Your task to perform on an android device: Clear the cart on newegg. Search for razer thresher on newegg, select the first entry, add it to the cart, then select checkout. Image 0: 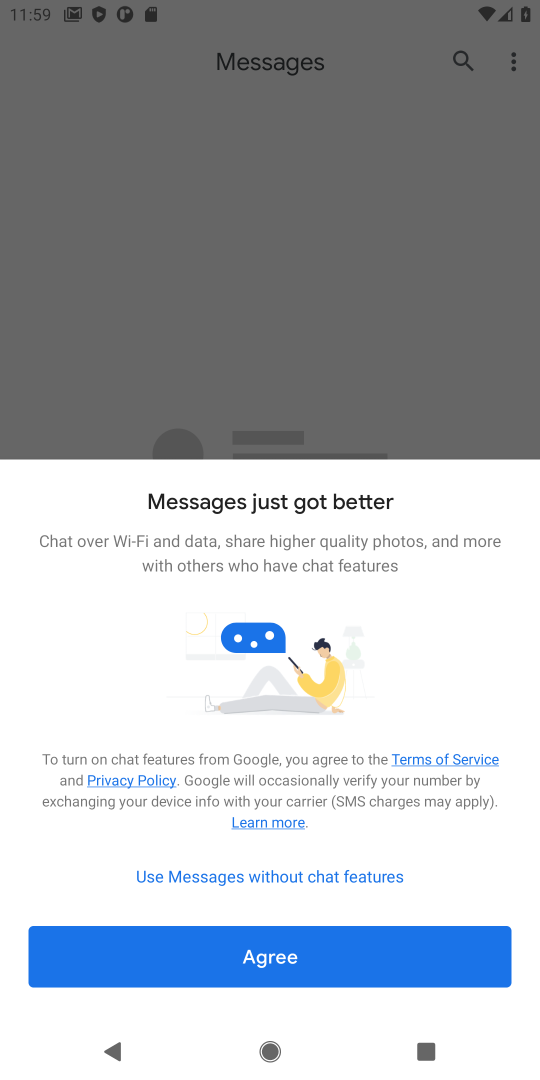
Step 0: press home button
Your task to perform on an android device: Clear the cart on newegg. Search for razer thresher on newegg, select the first entry, add it to the cart, then select checkout. Image 1: 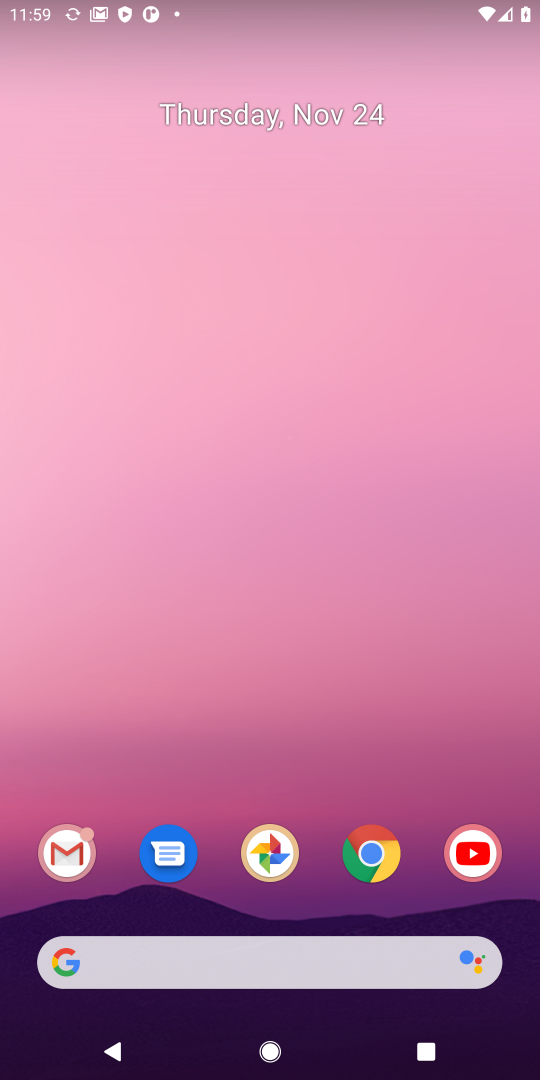
Step 1: click (131, 947)
Your task to perform on an android device: Clear the cart on newegg. Search for razer thresher on newegg, select the first entry, add it to the cart, then select checkout. Image 2: 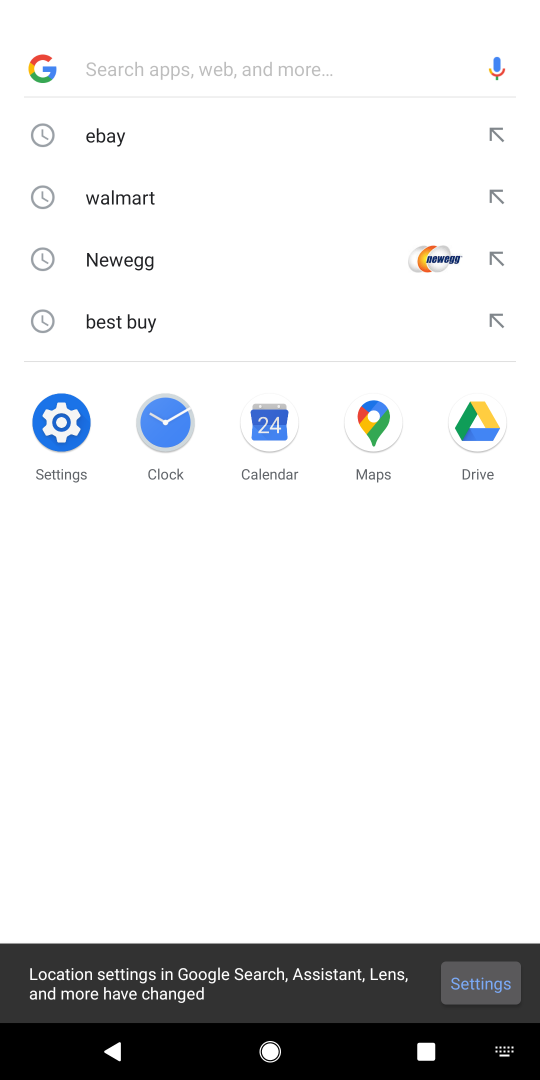
Step 2: type "newegg"
Your task to perform on an android device: Clear the cart on newegg. Search for razer thresher on newegg, select the first entry, add it to the cart, then select checkout. Image 3: 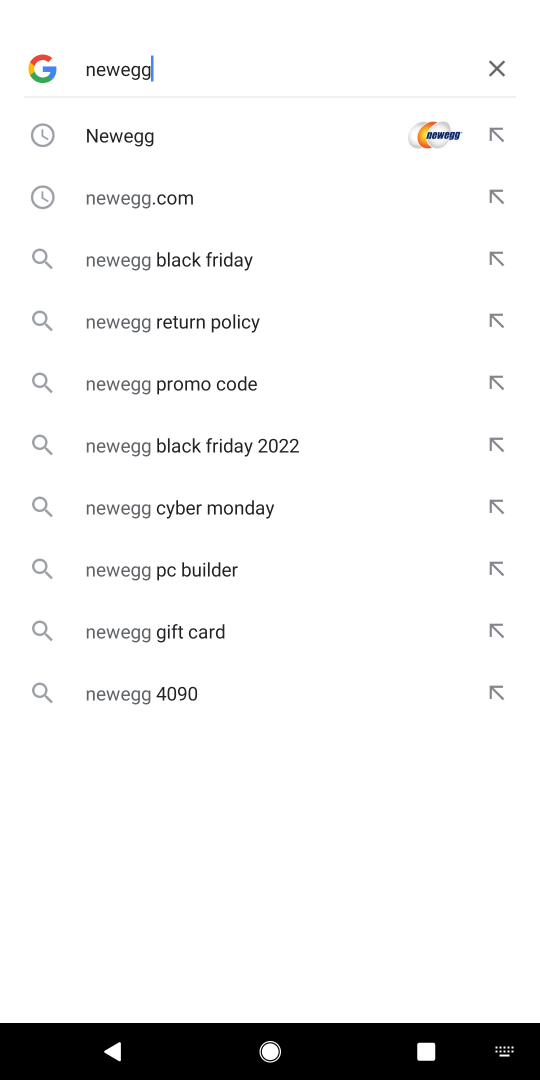
Step 3: click (279, 134)
Your task to perform on an android device: Clear the cart on newegg. Search for razer thresher on newegg, select the first entry, add it to the cart, then select checkout. Image 4: 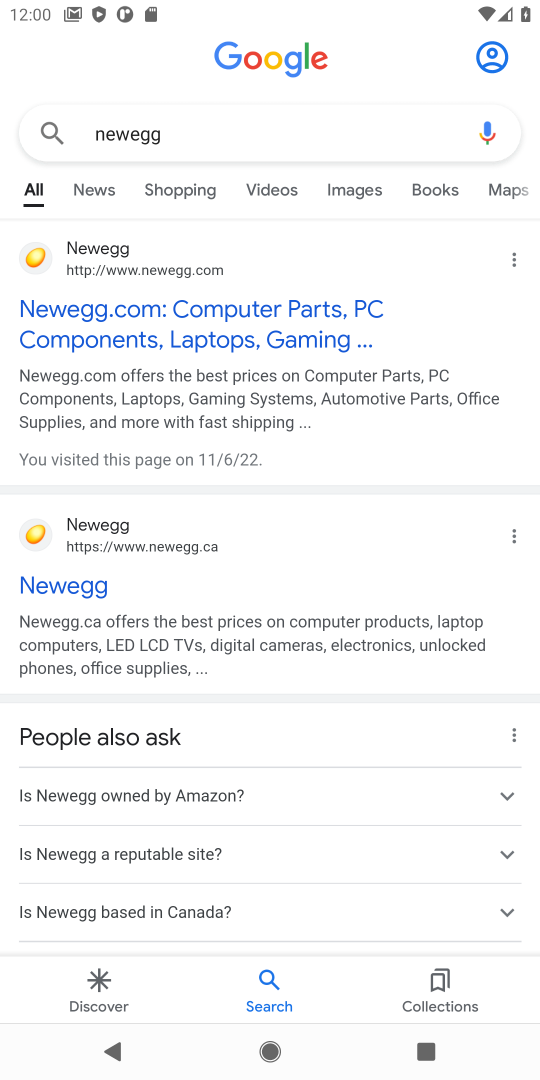
Step 4: click (283, 304)
Your task to perform on an android device: Clear the cart on newegg. Search for razer thresher on newegg, select the first entry, add it to the cart, then select checkout. Image 5: 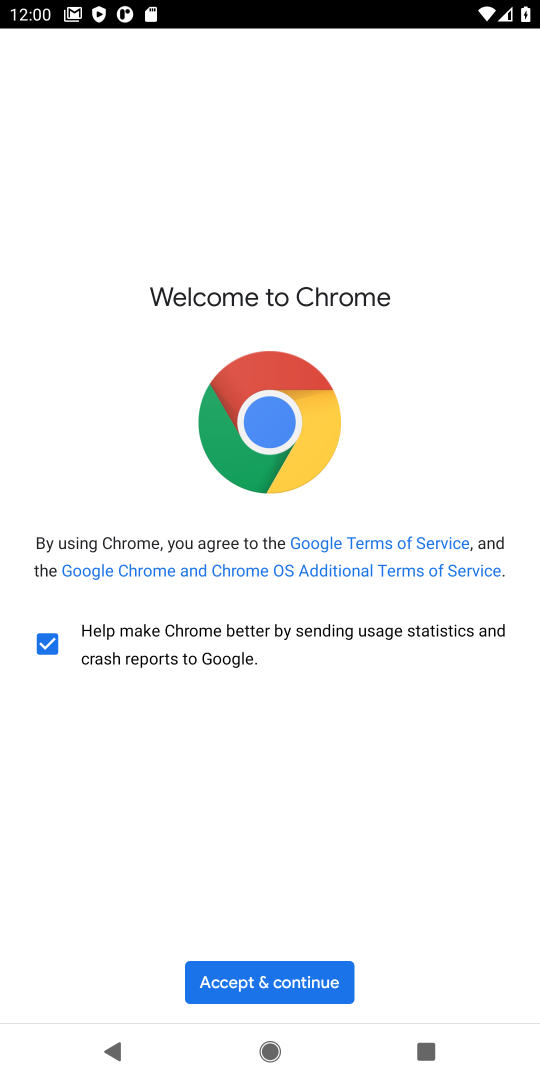
Step 5: click (268, 960)
Your task to perform on an android device: Clear the cart on newegg. Search for razer thresher on newegg, select the first entry, add it to the cart, then select checkout. Image 6: 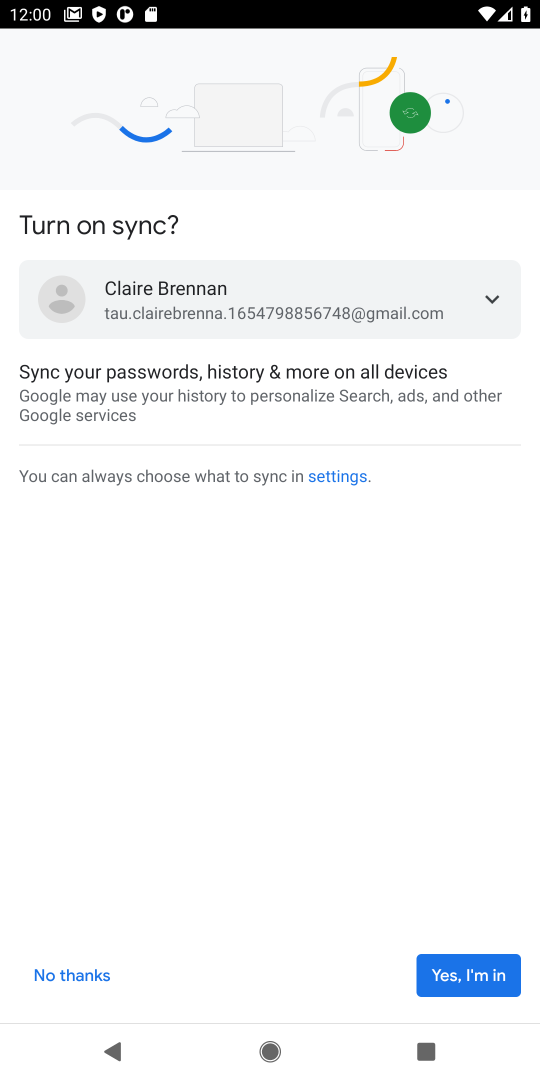
Step 6: click (510, 969)
Your task to perform on an android device: Clear the cart on newegg. Search for razer thresher on newegg, select the first entry, add it to the cart, then select checkout. Image 7: 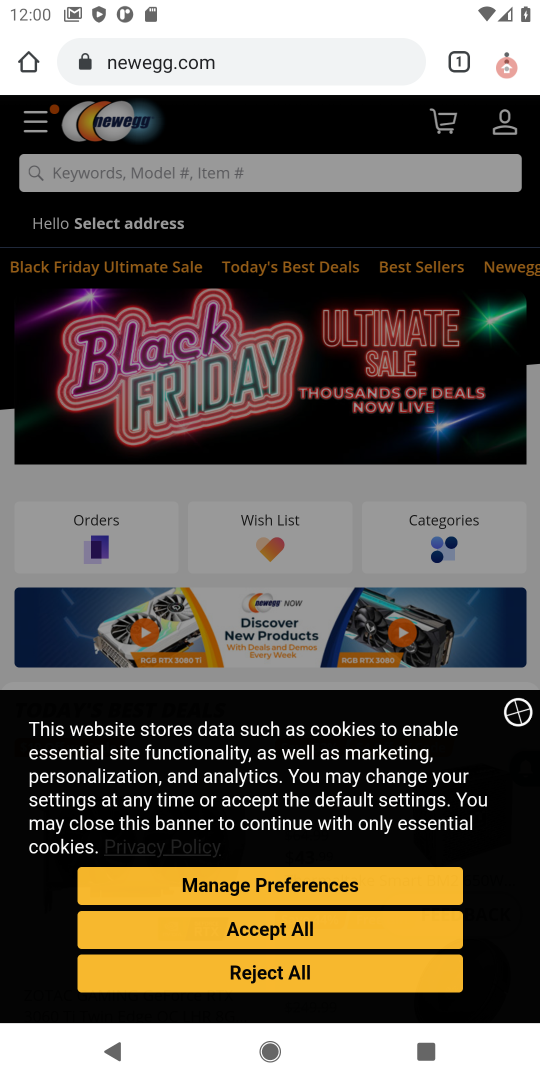
Step 7: click (317, 1002)
Your task to perform on an android device: Clear the cart on newegg. Search for razer thresher on newegg, select the first entry, add it to the cart, then select checkout. Image 8: 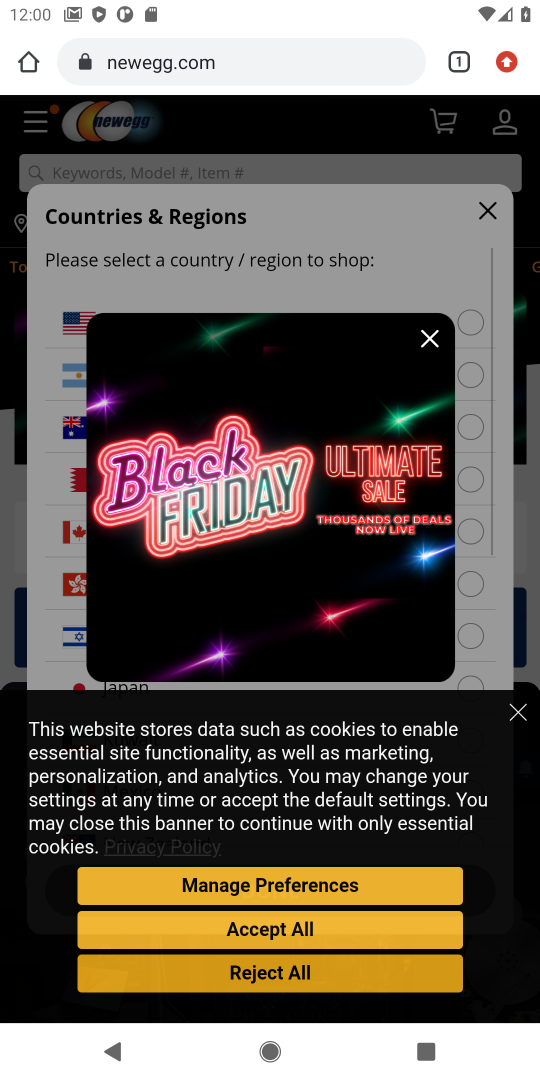
Step 8: task complete